Your task to perform on an android device: What is the recent news? Image 0: 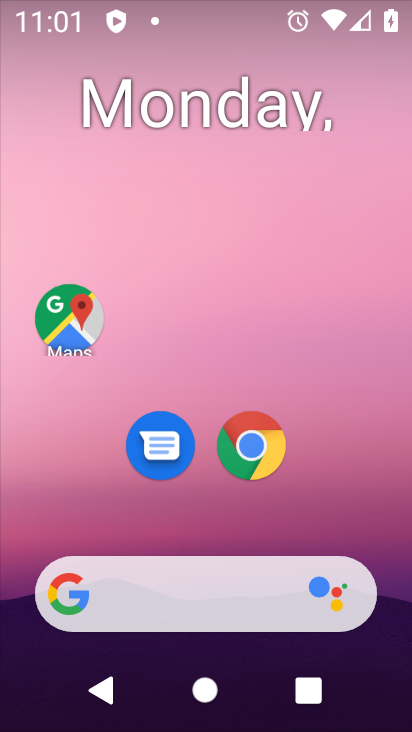
Step 0: click (257, 465)
Your task to perform on an android device: What is the recent news? Image 1: 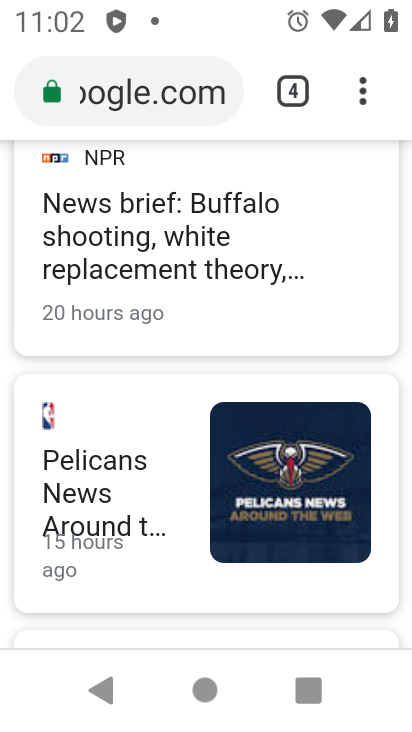
Step 1: click (300, 91)
Your task to perform on an android device: What is the recent news? Image 2: 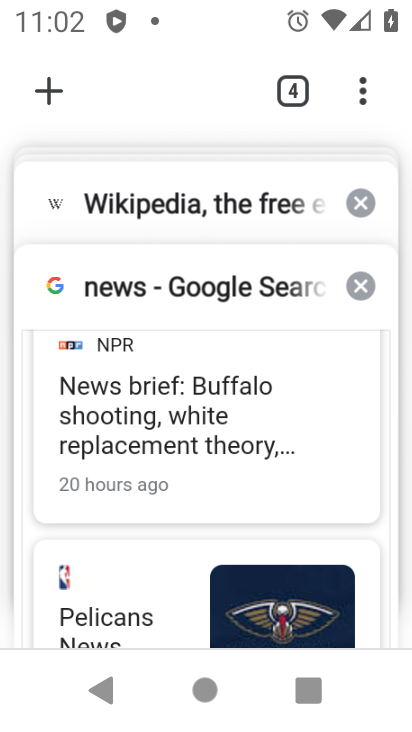
Step 2: drag from (197, 226) to (159, 527)
Your task to perform on an android device: What is the recent news? Image 3: 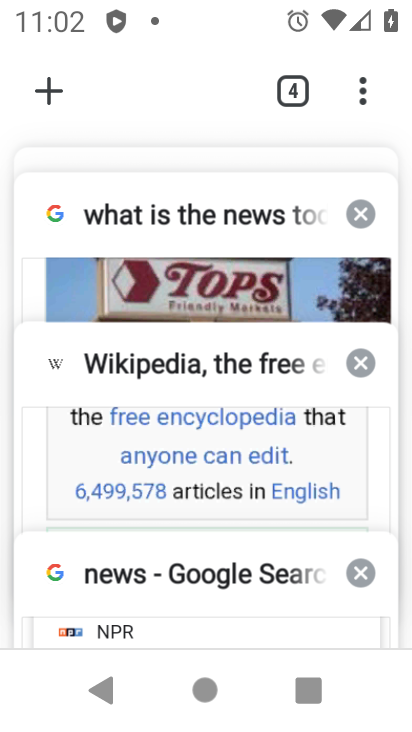
Step 3: click (156, 601)
Your task to perform on an android device: What is the recent news? Image 4: 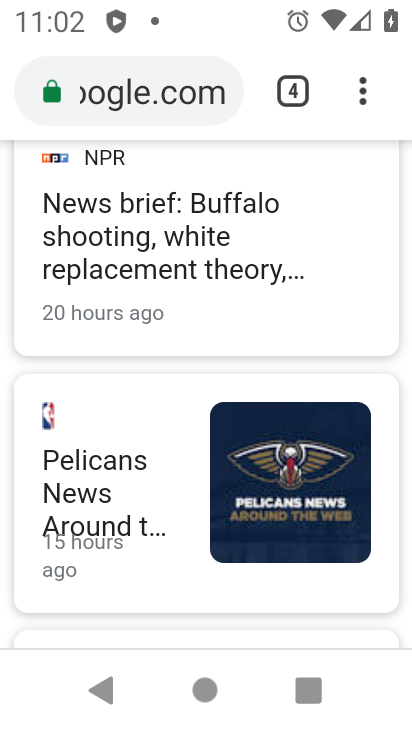
Step 4: task complete